Your task to perform on an android device: Search for Italian restaurants on Maps Image 0: 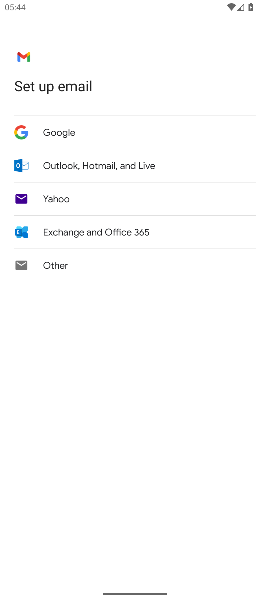
Step 0: press home button
Your task to perform on an android device: Search for Italian restaurants on Maps Image 1: 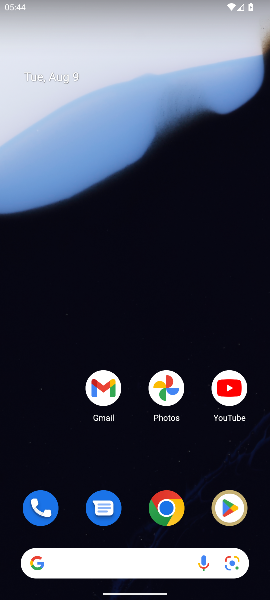
Step 1: drag from (152, 470) to (152, 125)
Your task to perform on an android device: Search for Italian restaurants on Maps Image 2: 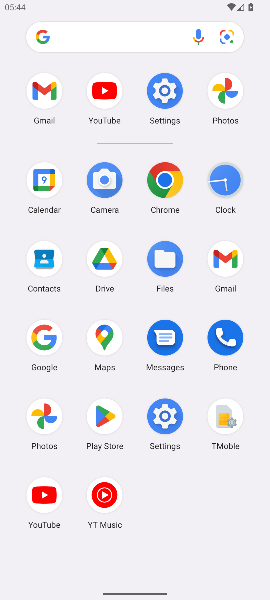
Step 2: click (102, 325)
Your task to perform on an android device: Search for Italian restaurants on Maps Image 3: 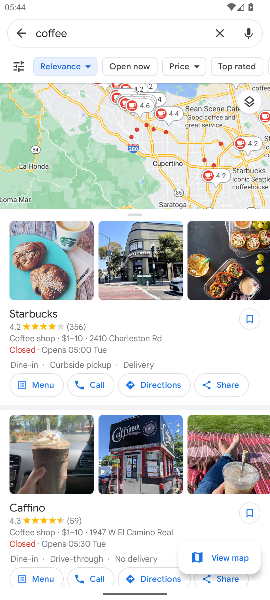
Step 3: click (22, 30)
Your task to perform on an android device: Search for Italian restaurants on Maps Image 4: 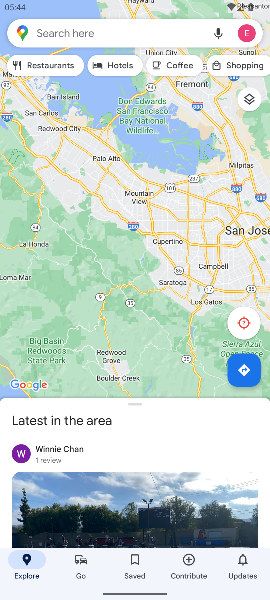
Step 4: click (70, 33)
Your task to perform on an android device: Search for Italian restaurants on Maps Image 5: 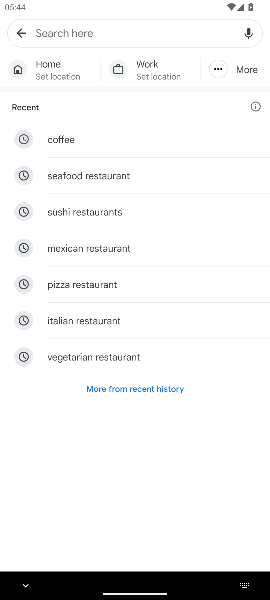
Step 5: type "italian restaurants"
Your task to perform on an android device: Search for Italian restaurants on Maps Image 6: 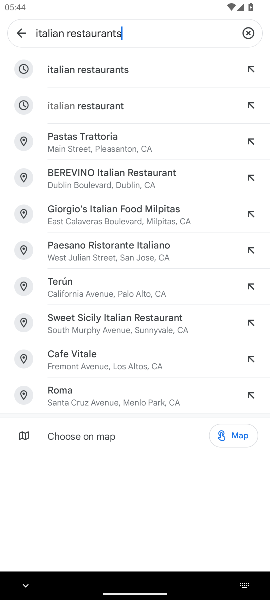
Step 6: click (105, 78)
Your task to perform on an android device: Search for Italian restaurants on Maps Image 7: 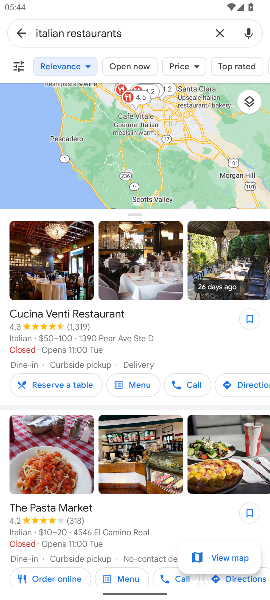
Step 7: task complete